Your task to perform on an android device: open a bookmark in the chrome app Image 0: 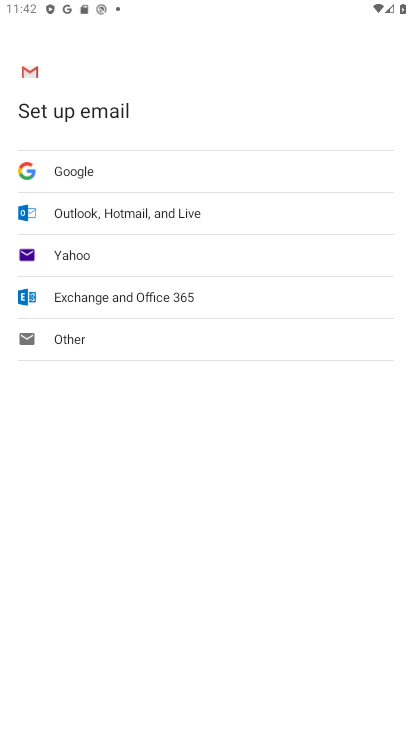
Step 0: press home button
Your task to perform on an android device: open a bookmark in the chrome app Image 1: 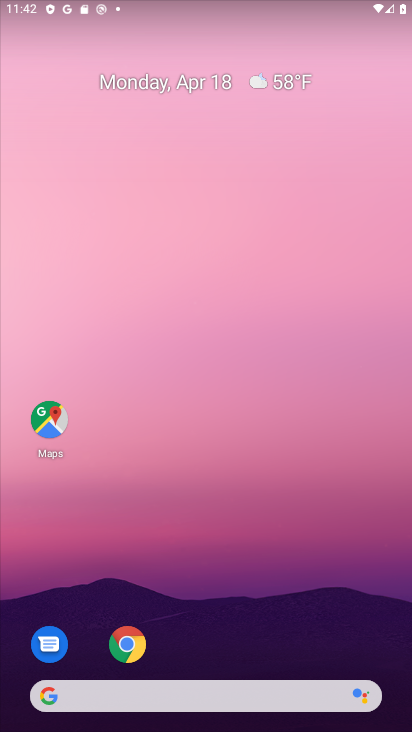
Step 1: click (121, 633)
Your task to perform on an android device: open a bookmark in the chrome app Image 2: 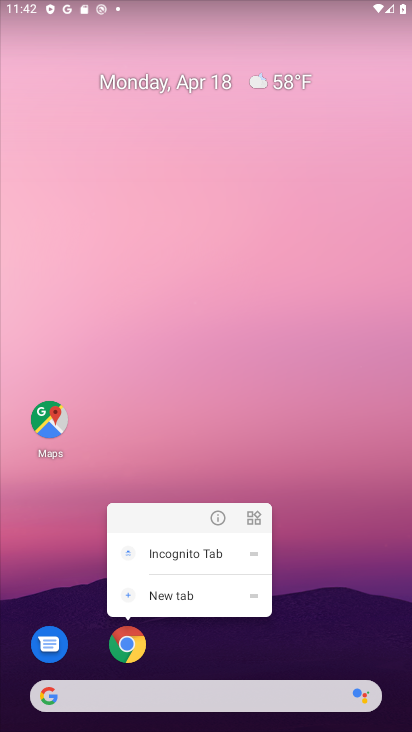
Step 2: click (131, 643)
Your task to perform on an android device: open a bookmark in the chrome app Image 3: 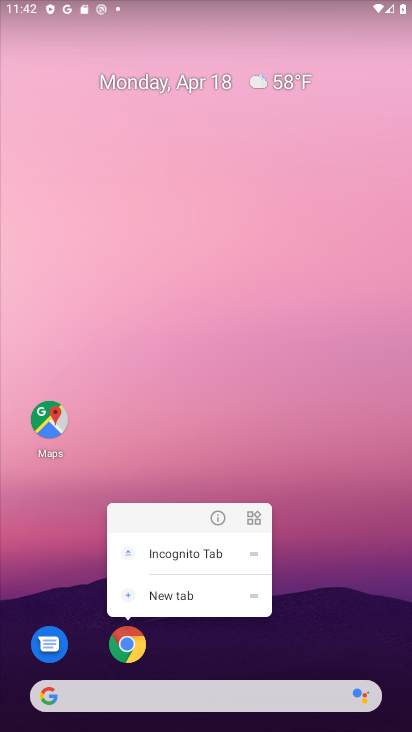
Step 3: click (132, 653)
Your task to perform on an android device: open a bookmark in the chrome app Image 4: 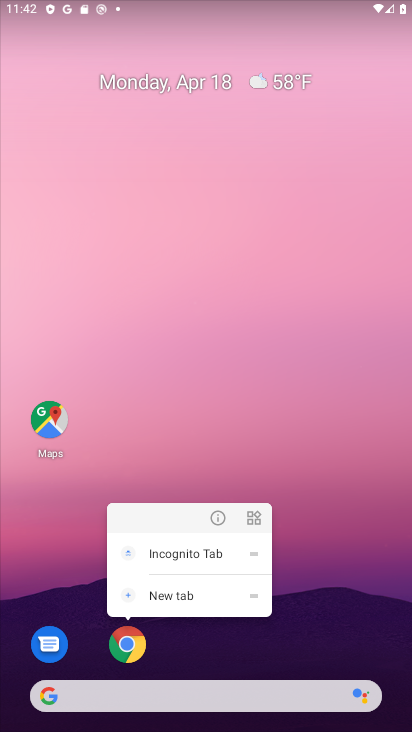
Step 4: click (132, 653)
Your task to perform on an android device: open a bookmark in the chrome app Image 5: 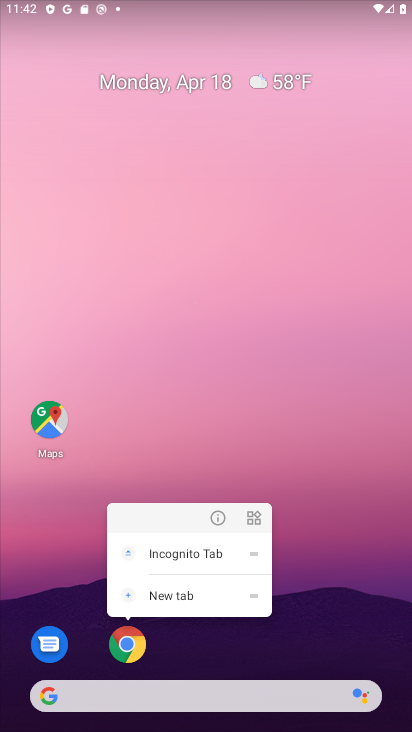
Step 5: click (132, 653)
Your task to perform on an android device: open a bookmark in the chrome app Image 6: 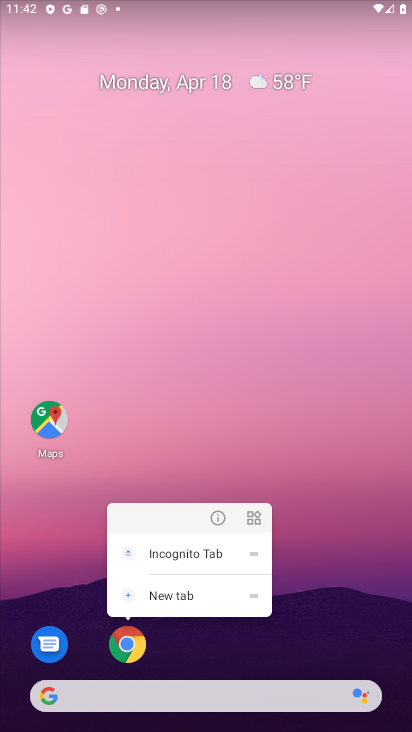
Step 6: click (124, 642)
Your task to perform on an android device: open a bookmark in the chrome app Image 7: 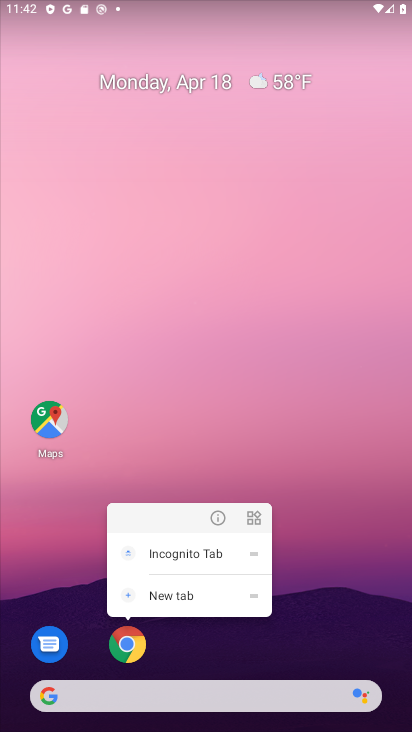
Step 7: click (124, 642)
Your task to perform on an android device: open a bookmark in the chrome app Image 8: 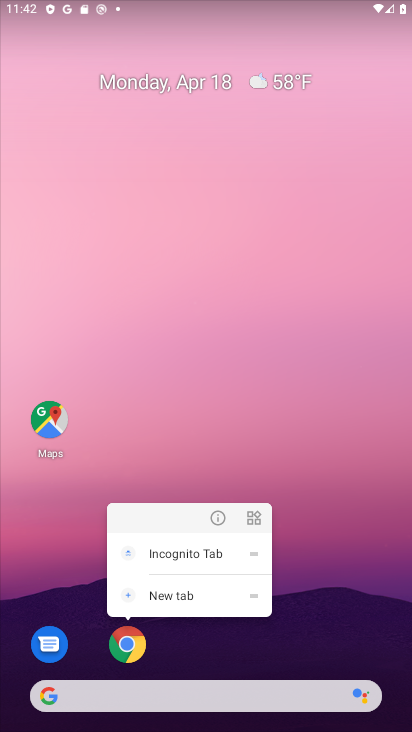
Step 8: click (123, 639)
Your task to perform on an android device: open a bookmark in the chrome app Image 9: 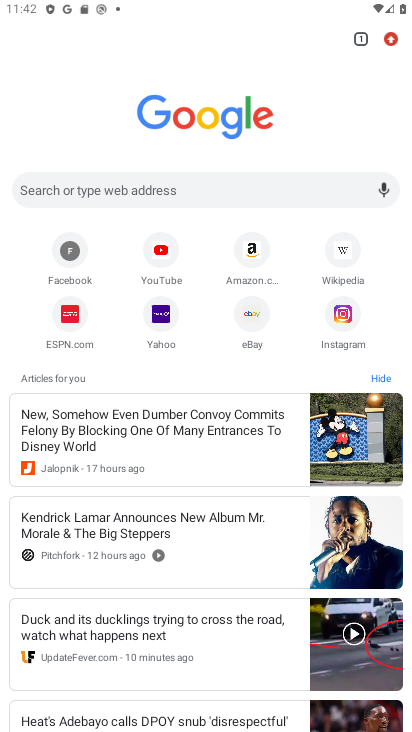
Step 9: click (389, 38)
Your task to perform on an android device: open a bookmark in the chrome app Image 10: 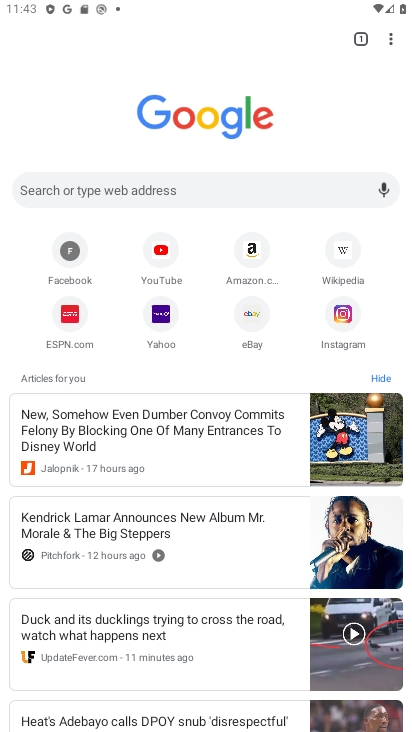
Step 10: task complete